Your task to perform on an android device: Open network settings Image 0: 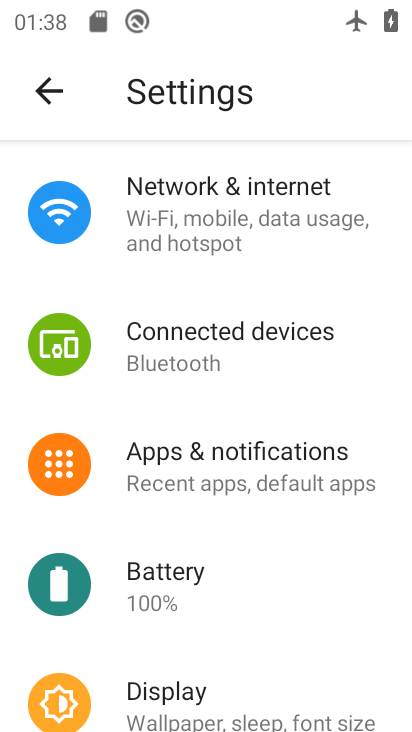
Step 0: click (225, 204)
Your task to perform on an android device: Open network settings Image 1: 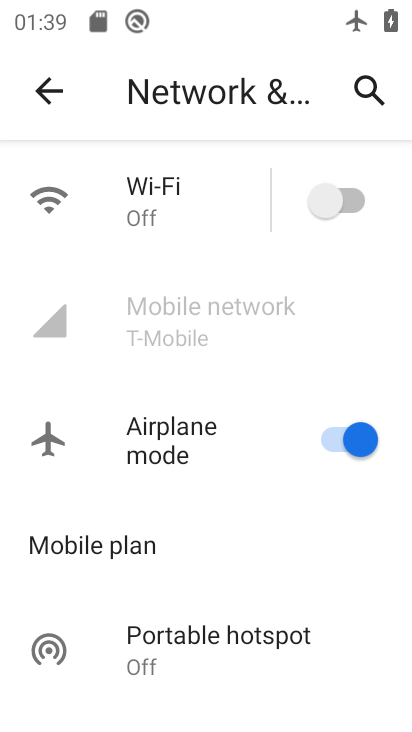
Step 1: task complete